Your task to perform on an android device: check storage Image 0: 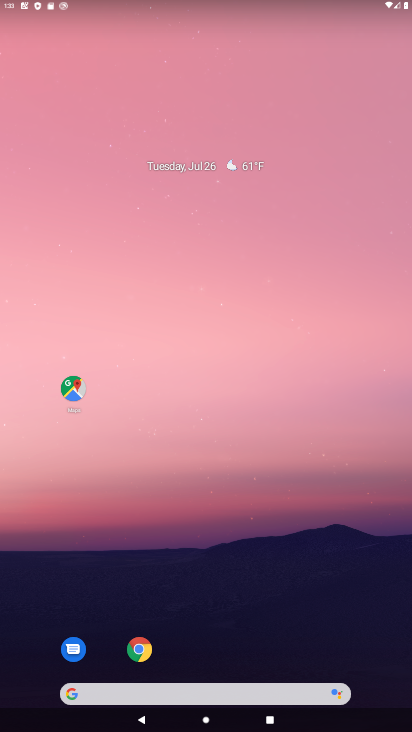
Step 0: press home button
Your task to perform on an android device: check storage Image 1: 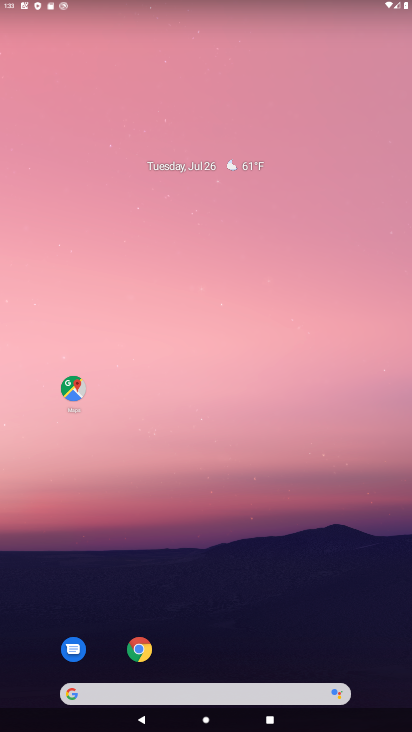
Step 1: drag from (224, 648) to (272, 206)
Your task to perform on an android device: check storage Image 2: 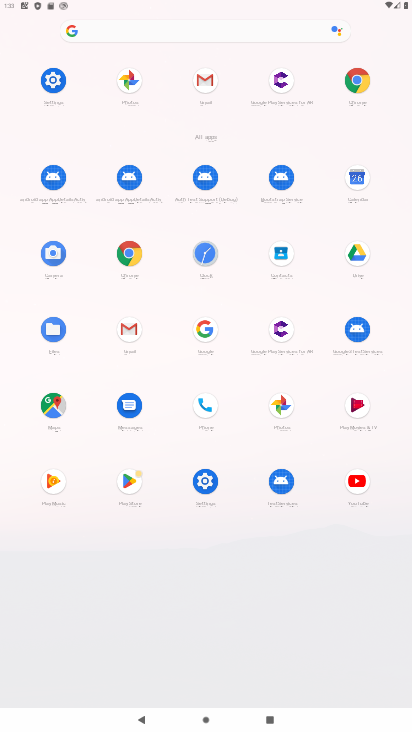
Step 2: click (206, 480)
Your task to perform on an android device: check storage Image 3: 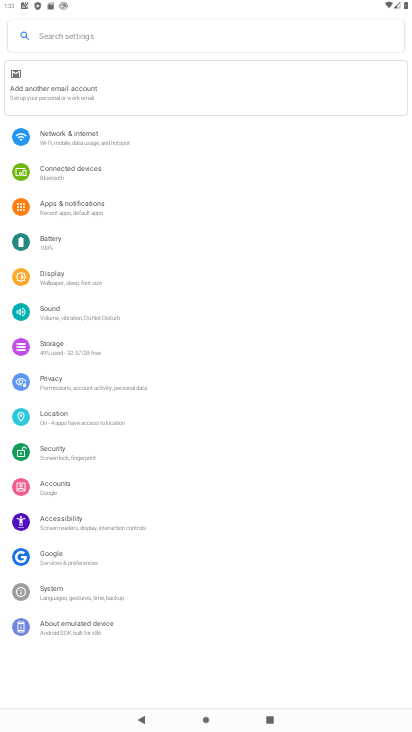
Step 3: click (69, 345)
Your task to perform on an android device: check storage Image 4: 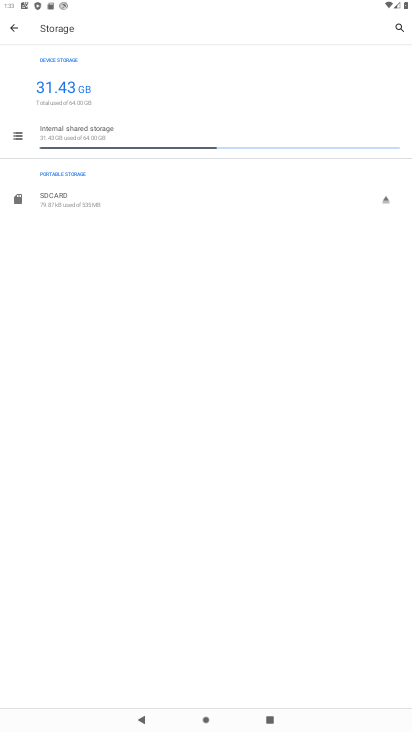
Step 4: task complete